Your task to perform on an android device: turn off smart reply in the gmail app Image 0: 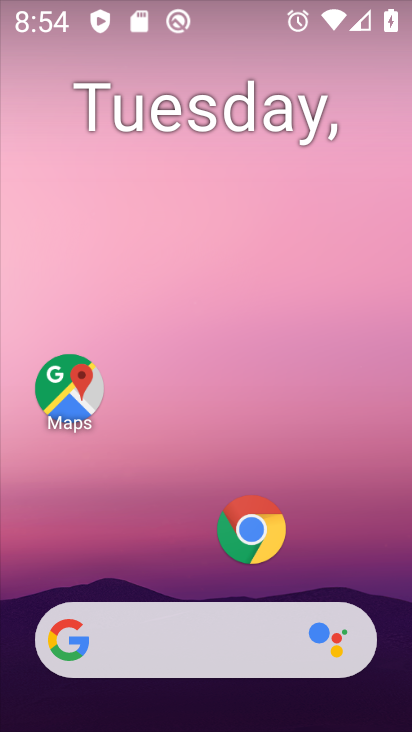
Step 0: press home button
Your task to perform on an android device: turn off smart reply in the gmail app Image 1: 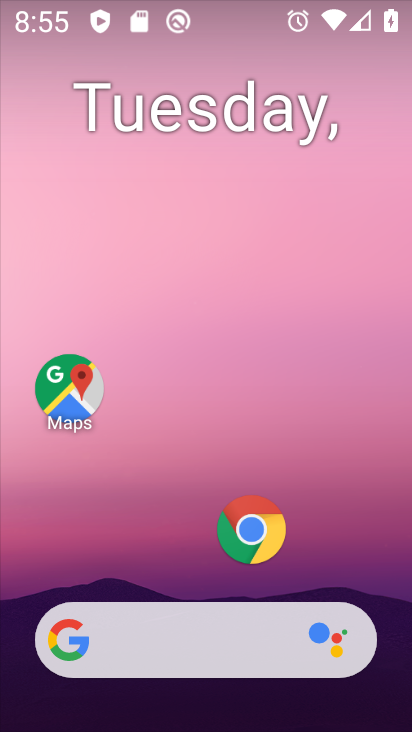
Step 1: drag from (201, 580) to (212, 67)
Your task to perform on an android device: turn off smart reply in the gmail app Image 2: 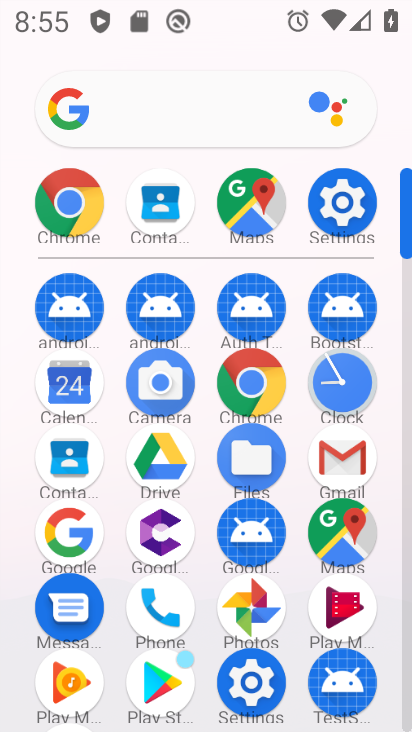
Step 2: click (341, 447)
Your task to perform on an android device: turn off smart reply in the gmail app Image 3: 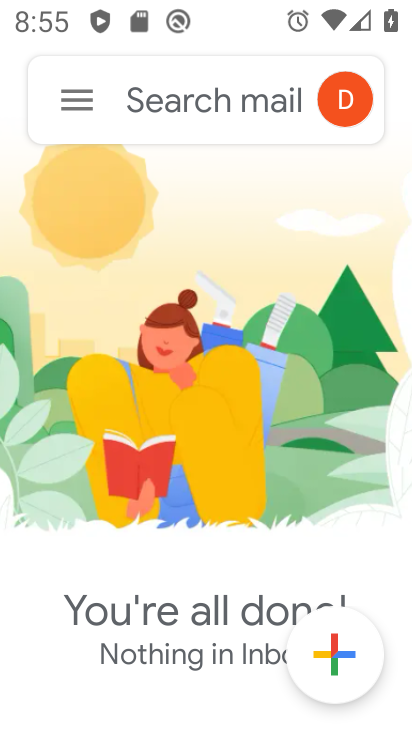
Step 3: click (70, 98)
Your task to perform on an android device: turn off smart reply in the gmail app Image 4: 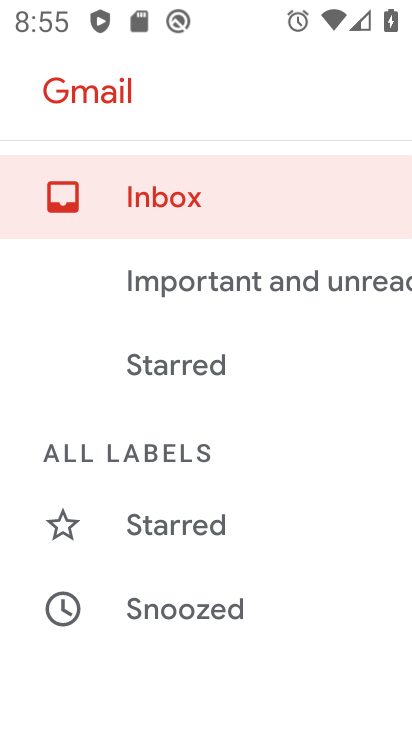
Step 4: drag from (122, 345) to (143, 90)
Your task to perform on an android device: turn off smart reply in the gmail app Image 5: 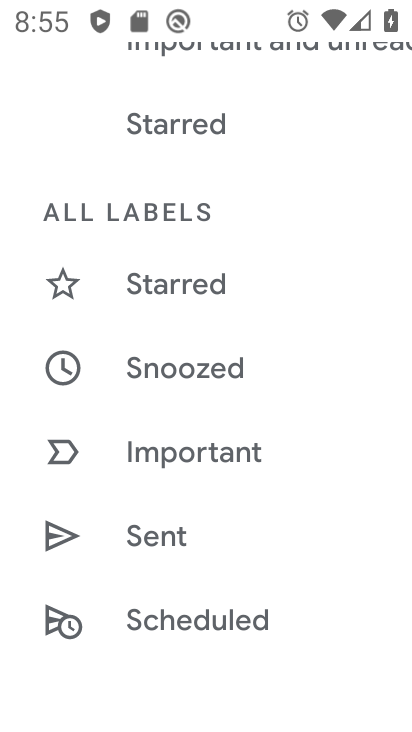
Step 5: drag from (123, 564) to (171, 103)
Your task to perform on an android device: turn off smart reply in the gmail app Image 6: 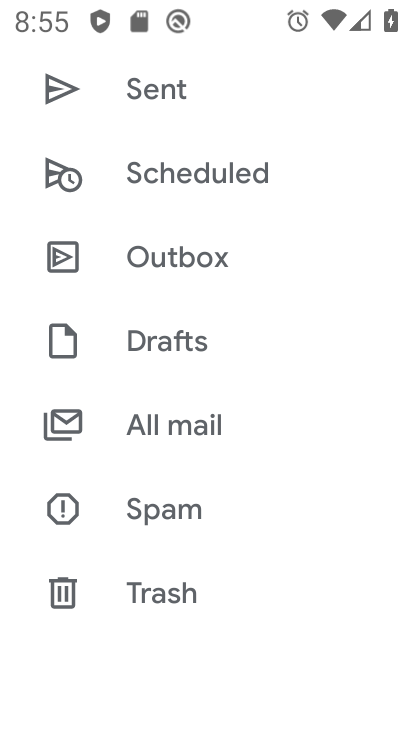
Step 6: drag from (175, 549) to (198, 77)
Your task to perform on an android device: turn off smart reply in the gmail app Image 7: 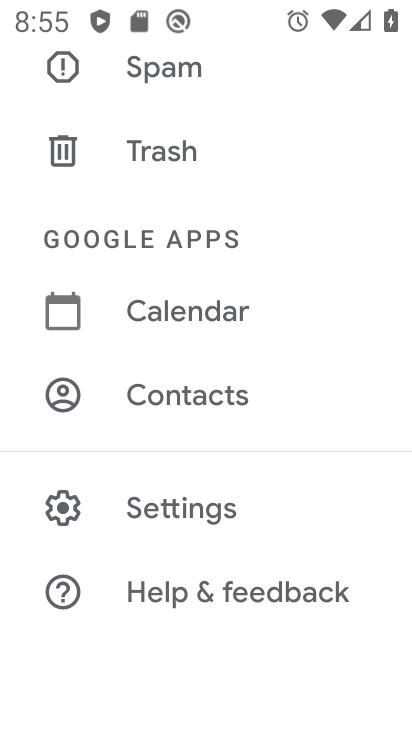
Step 7: click (170, 507)
Your task to perform on an android device: turn off smart reply in the gmail app Image 8: 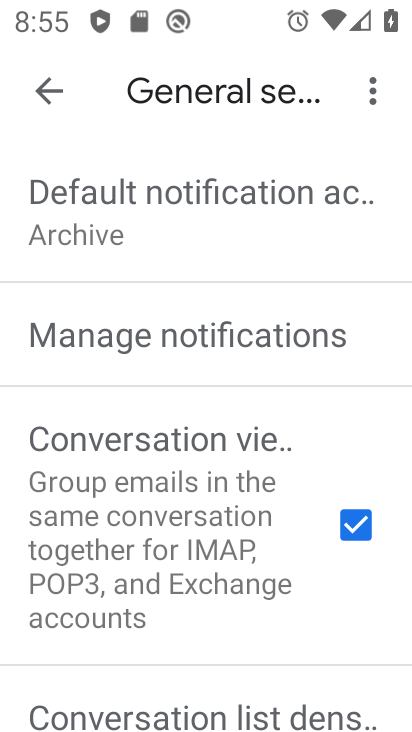
Step 8: click (50, 82)
Your task to perform on an android device: turn off smart reply in the gmail app Image 9: 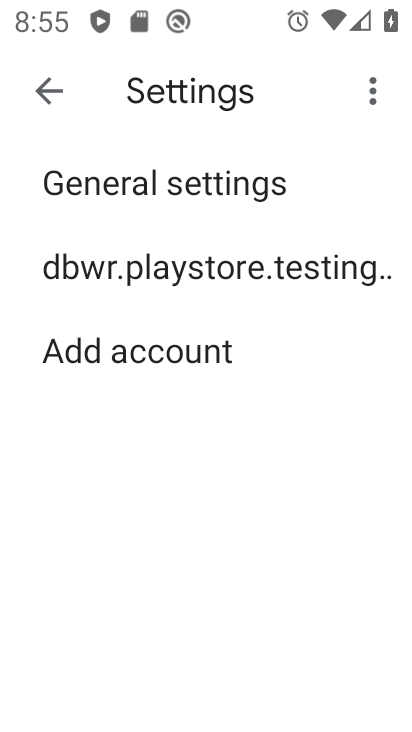
Step 9: click (148, 263)
Your task to perform on an android device: turn off smart reply in the gmail app Image 10: 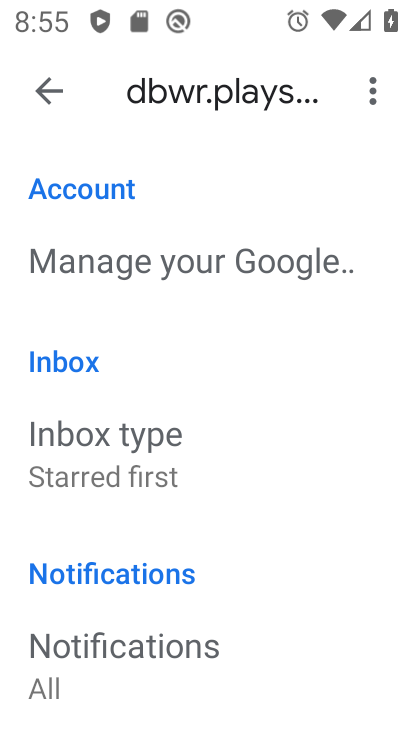
Step 10: drag from (185, 681) to (215, 157)
Your task to perform on an android device: turn off smart reply in the gmail app Image 11: 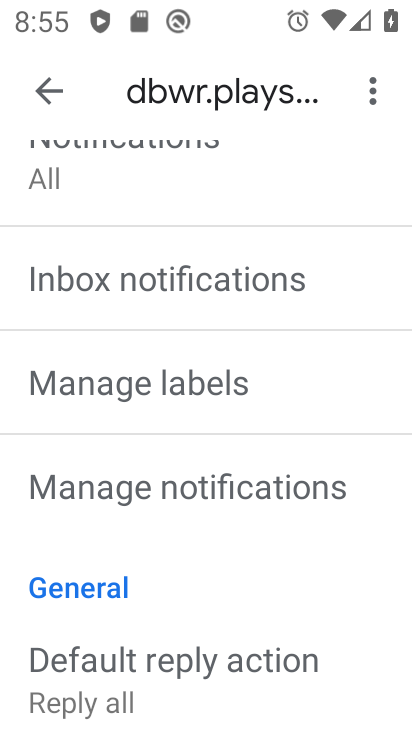
Step 11: drag from (201, 635) to (201, 189)
Your task to perform on an android device: turn off smart reply in the gmail app Image 12: 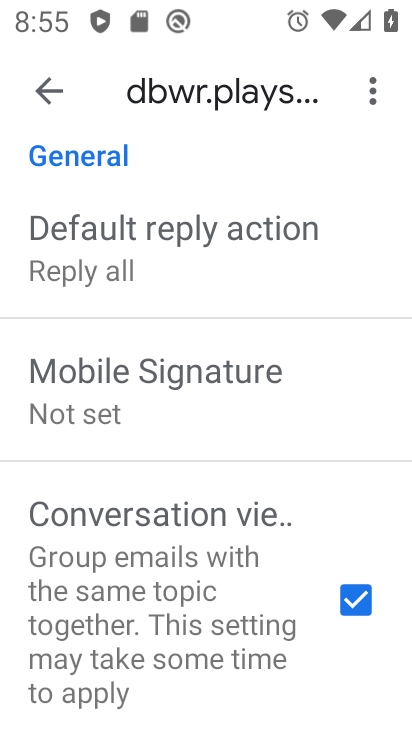
Step 12: drag from (170, 582) to (197, 139)
Your task to perform on an android device: turn off smart reply in the gmail app Image 13: 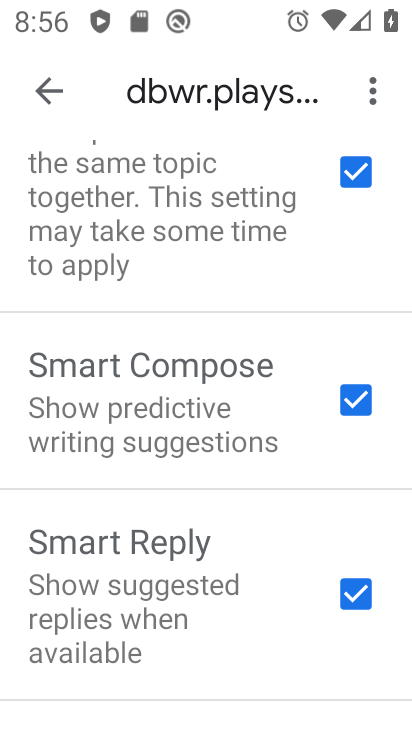
Step 13: click (359, 591)
Your task to perform on an android device: turn off smart reply in the gmail app Image 14: 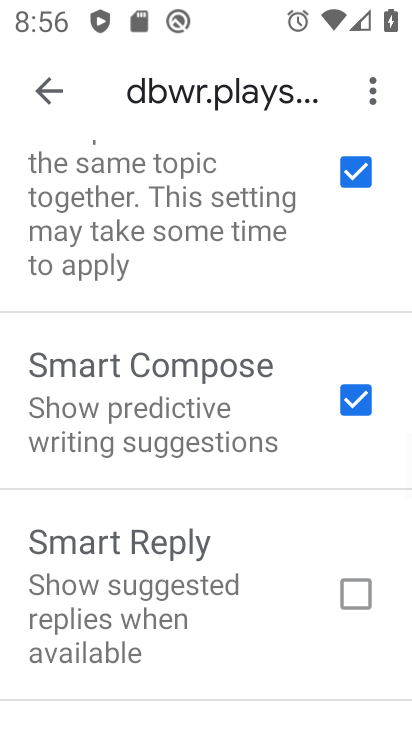
Step 14: task complete